Your task to perform on an android device: Search for sushi restaurants on Maps Image 0: 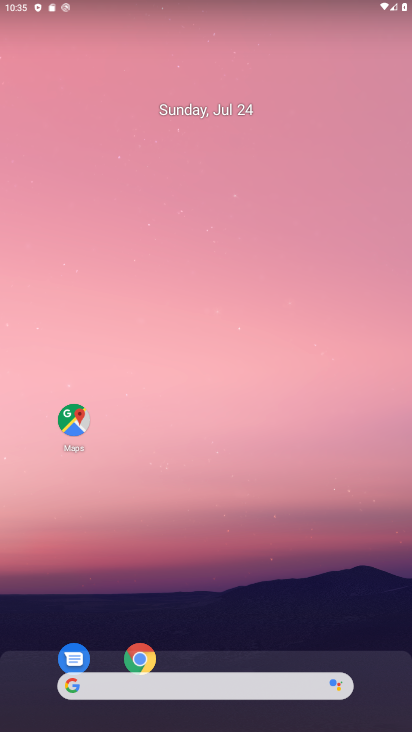
Step 0: click (73, 424)
Your task to perform on an android device: Search for sushi restaurants on Maps Image 1: 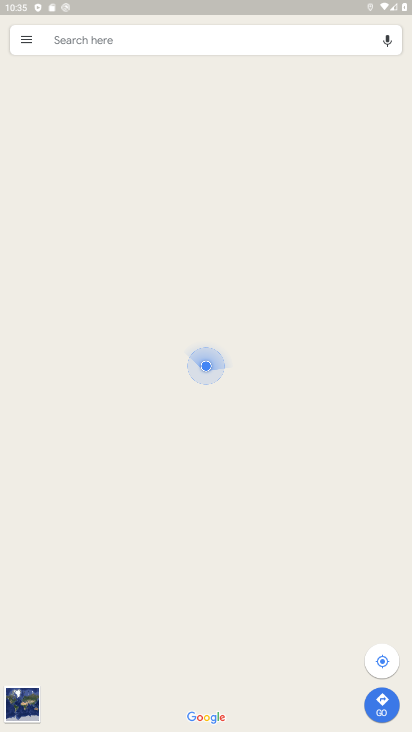
Step 1: click (236, 41)
Your task to perform on an android device: Search for sushi restaurants on Maps Image 2: 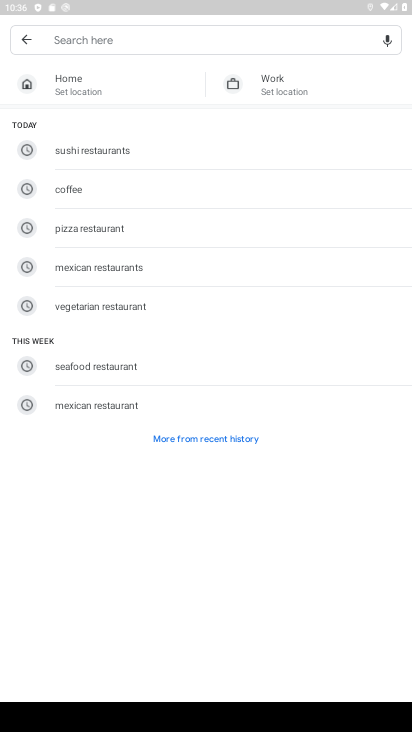
Step 2: type "sushi restaurants"
Your task to perform on an android device: Search for sushi restaurants on Maps Image 3: 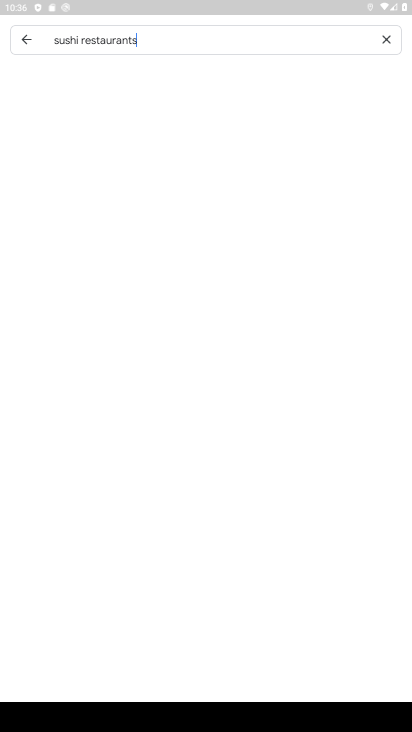
Step 3: type ""
Your task to perform on an android device: Search for sushi restaurants on Maps Image 4: 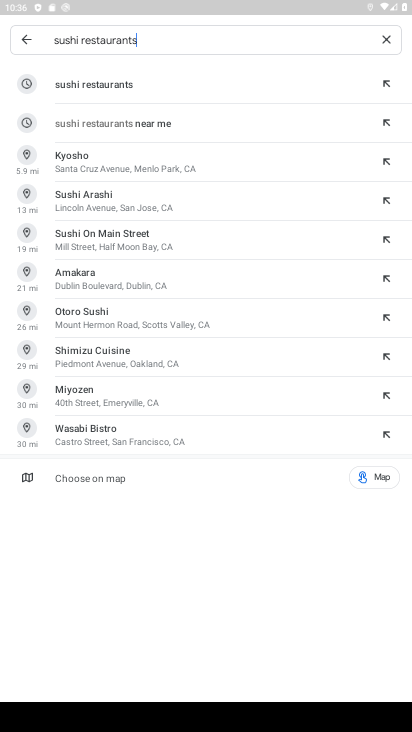
Step 4: click (128, 86)
Your task to perform on an android device: Search for sushi restaurants on Maps Image 5: 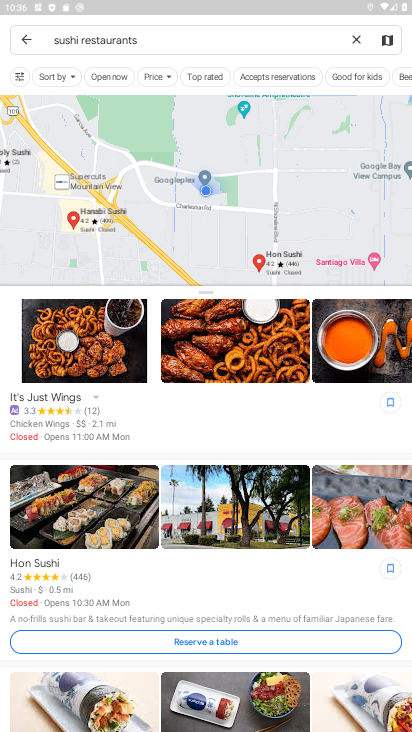
Step 5: task complete